Your task to perform on an android device: Open notification settings Image 0: 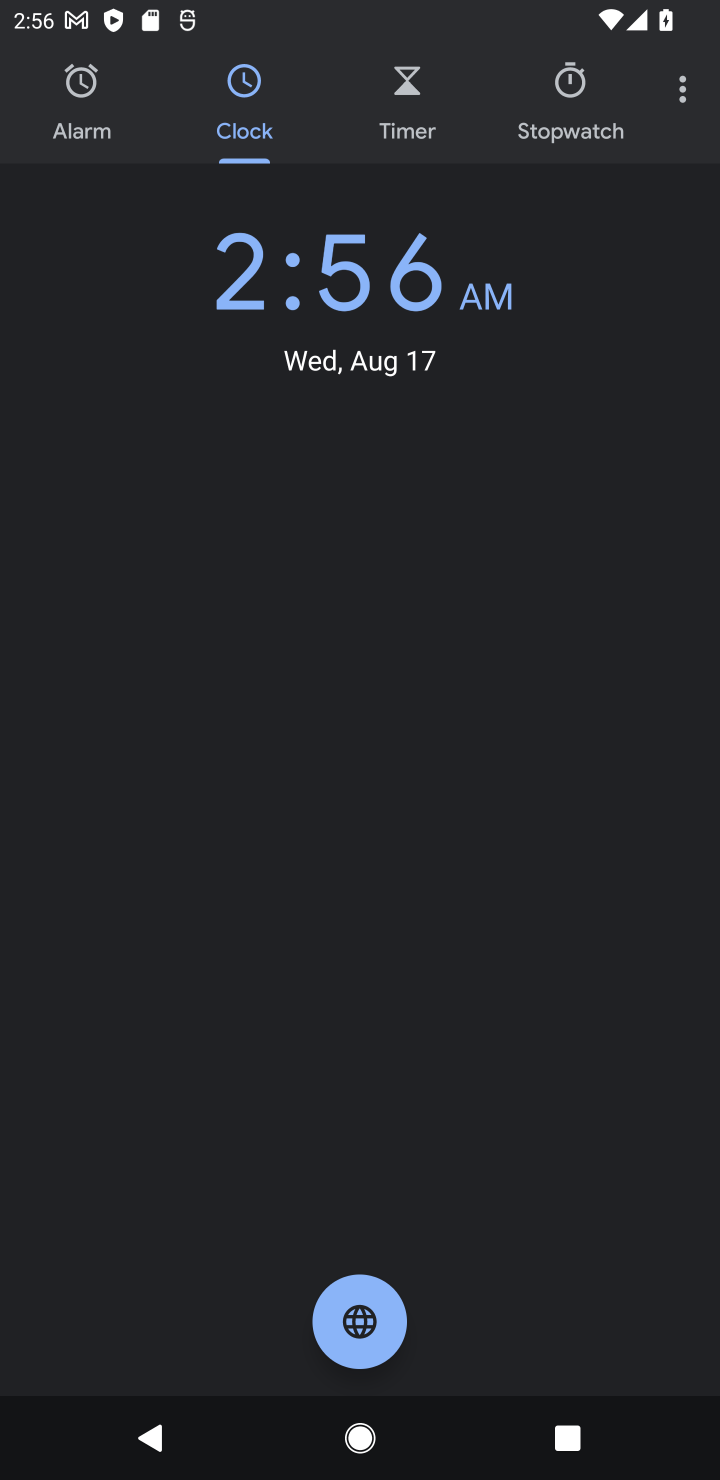
Step 0: press home button
Your task to perform on an android device: Open notification settings Image 1: 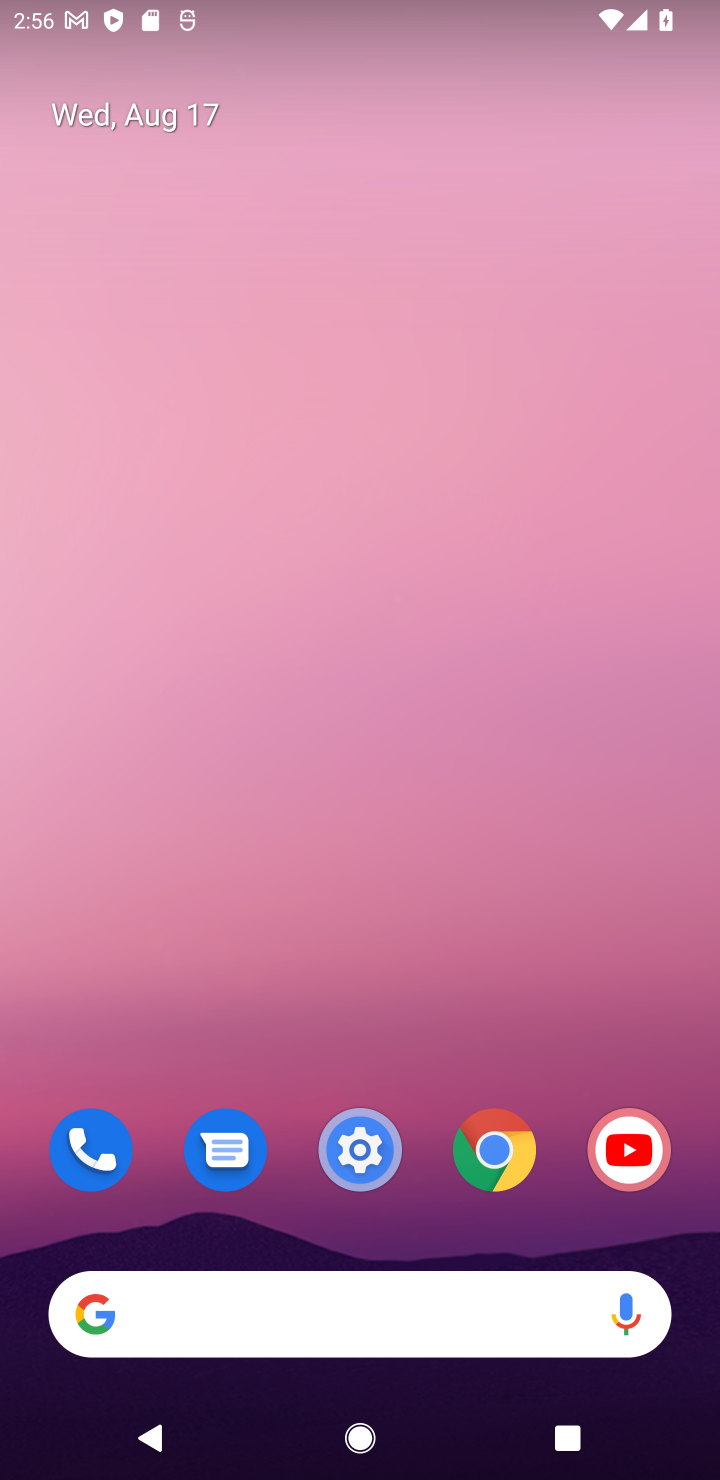
Step 1: drag from (595, 1226) to (373, 28)
Your task to perform on an android device: Open notification settings Image 2: 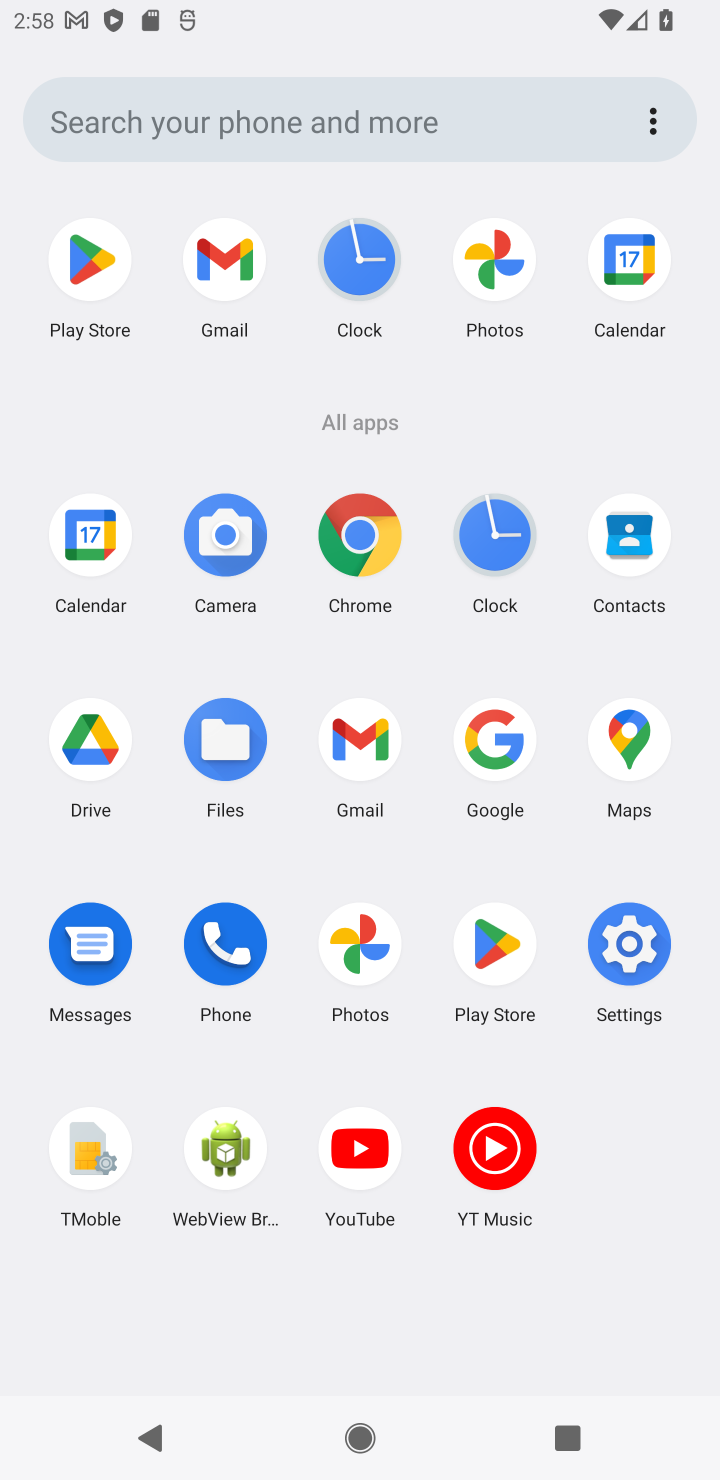
Step 2: click (635, 940)
Your task to perform on an android device: Open notification settings Image 3: 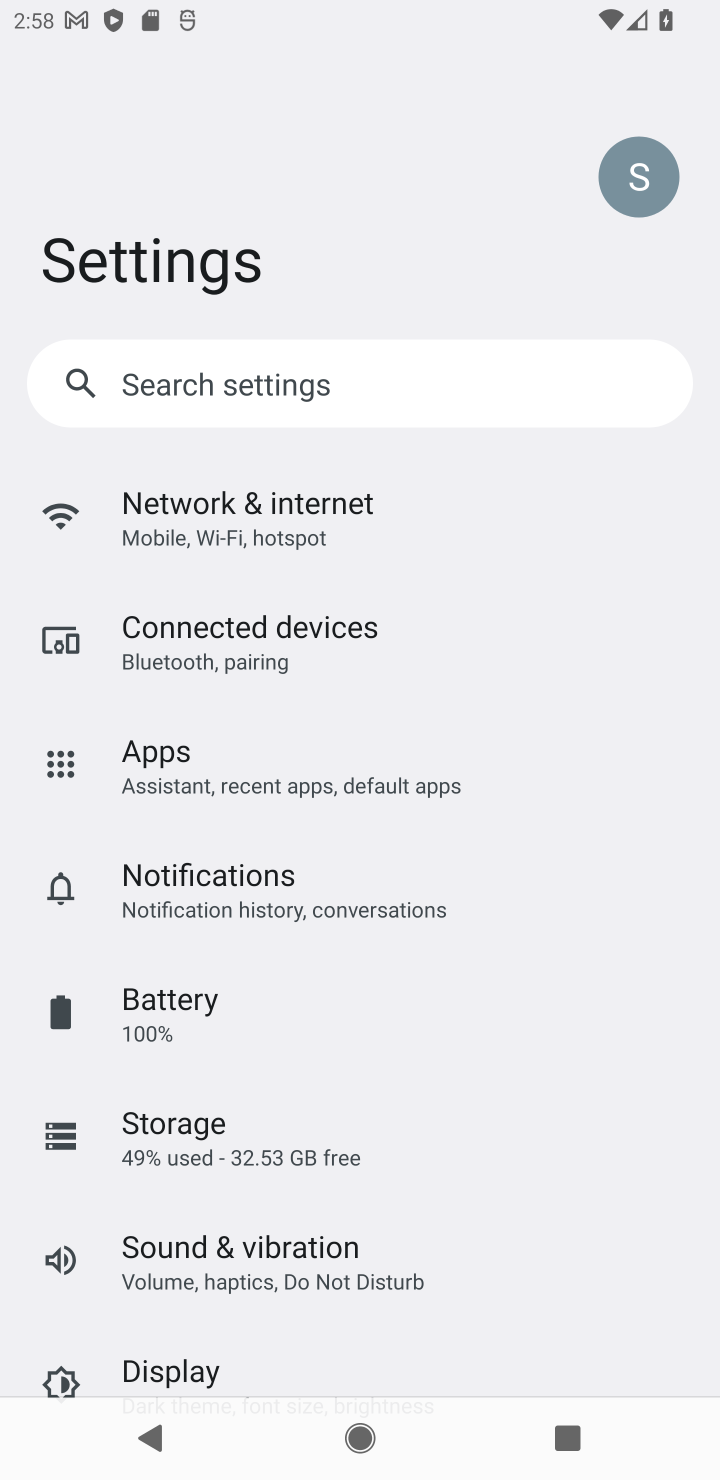
Step 3: click (297, 899)
Your task to perform on an android device: Open notification settings Image 4: 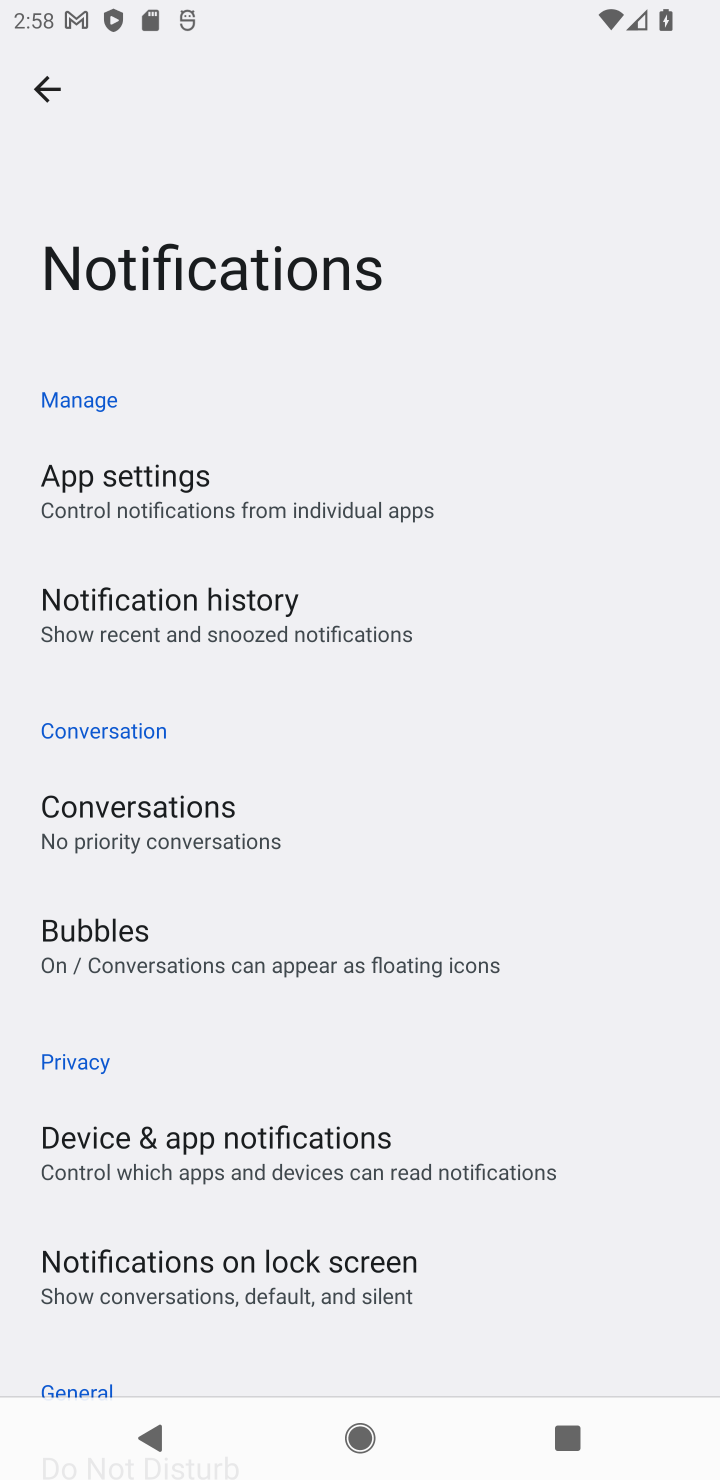
Step 4: task complete